Your task to perform on an android device: turn off translation in the chrome app Image 0: 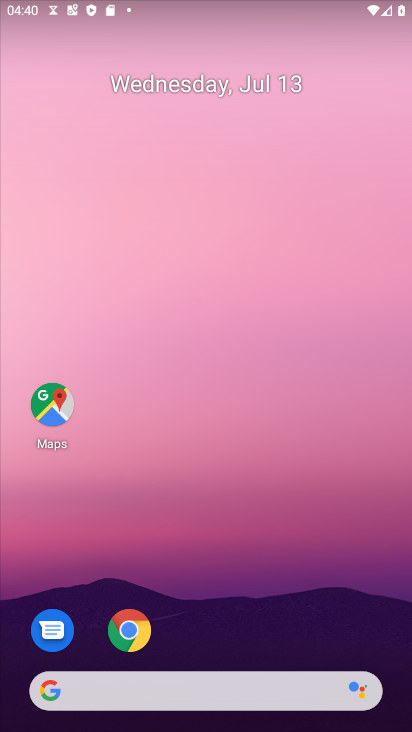
Step 0: drag from (231, 681) to (276, 15)
Your task to perform on an android device: turn off translation in the chrome app Image 1: 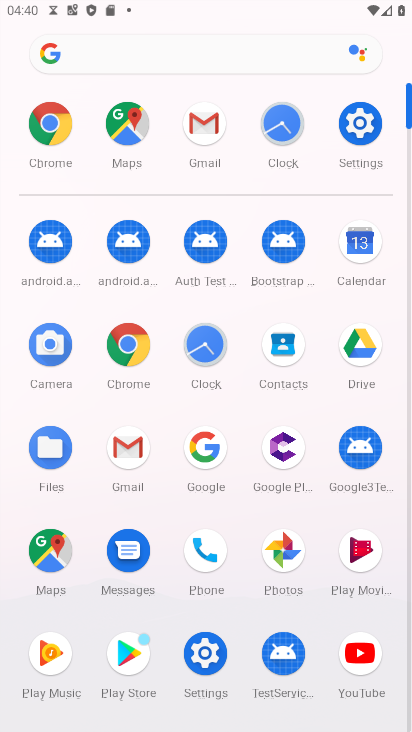
Step 1: click (126, 349)
Your task to perform on an android device: turn off translation in the chrome app Image 2: 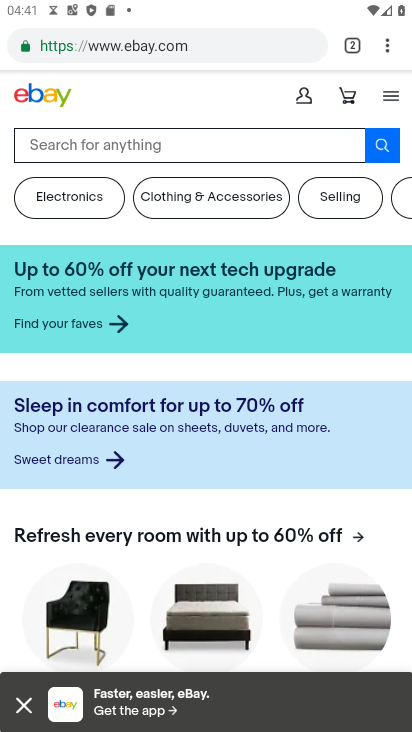
Step 2: drag from (382, 40) to (213, 541)
Your task to perform on an android device: turn off translation in the chrome app Image 3: 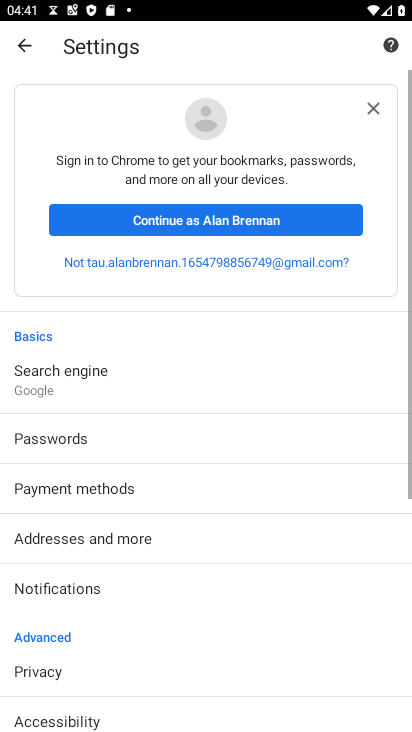
Step 3: drag from (168, 642) to (212, 135)
Your task to perform on an android device: turn off translation in the chrome app Image 4: 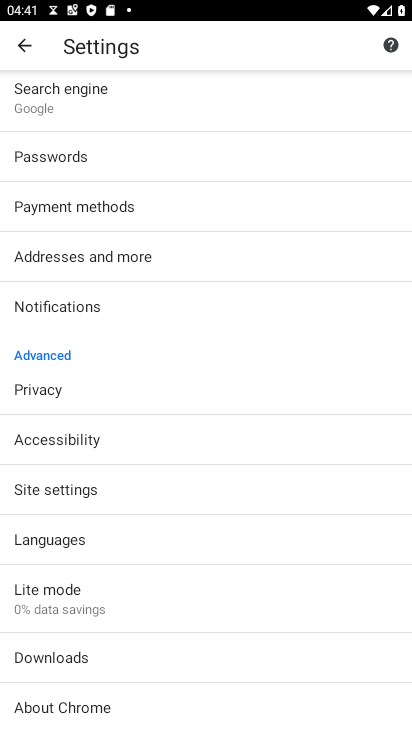
Step 4: click (96, 552)
Your task to perform on an android device: turn off translation in the chrome app Image 5: 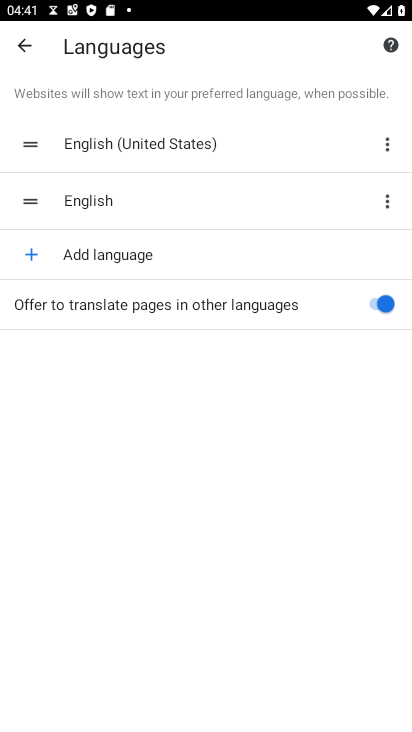
Step 5: click (380, 303)
Your task to perform on an android device: turn off translation in the chrome app Image 6: 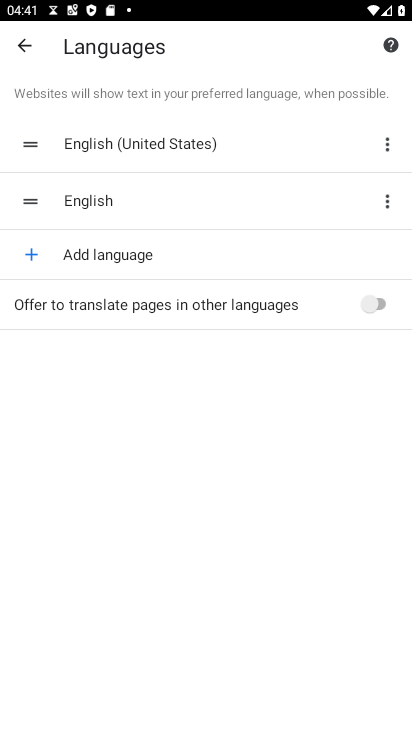
Step 6: task complete